Your task to perform on an android device: delete the emails in spam in the gmail app Image 0: 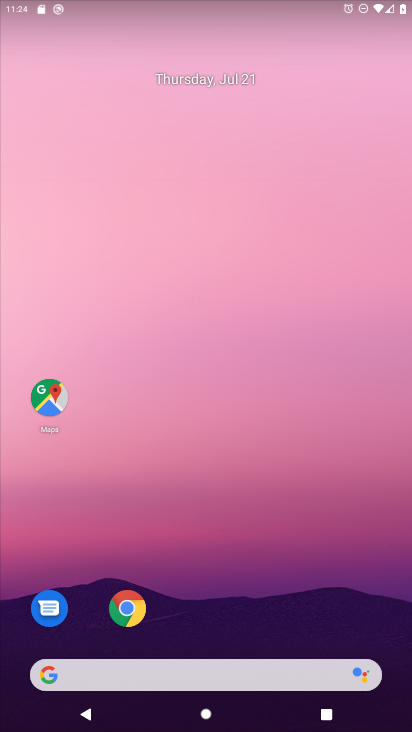
Step 0: drag from (354, 612) to (201, 98)
Your task to perform on an android device: delete the emails in spam in the gmail app Image 1: 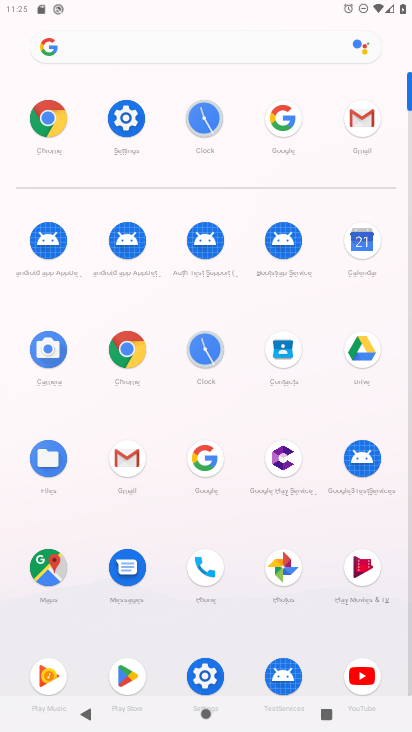
Step 1: click (127, 454)
Your task to perform on an android device: delete the emails in spam in the gmail app Image 2: 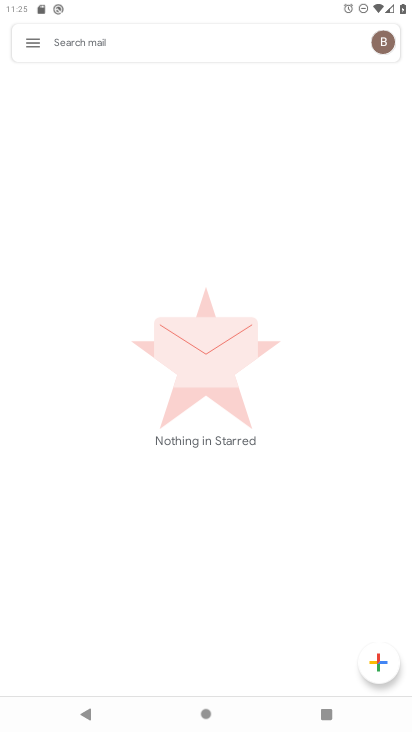
Step 2: click (39, 47)
Your task to perform on an android device: delete the emails in spam in the gmail app Image 3: 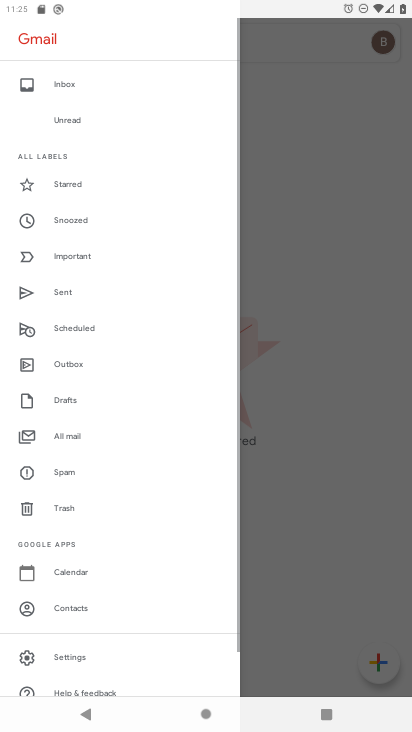
Step 3: click (74, 75)
Your task to perform on an android device: delete the emails in spam in the gmail app Image 4: 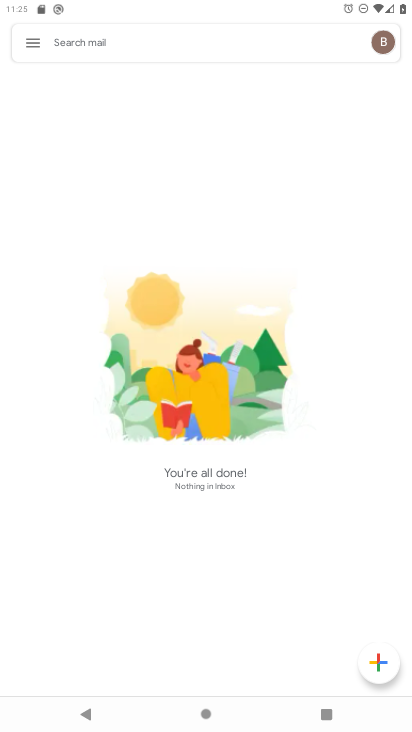
Step 4: task complete